Your task to perform on an android device: Open calendar and show me the third week of next month Image 0: 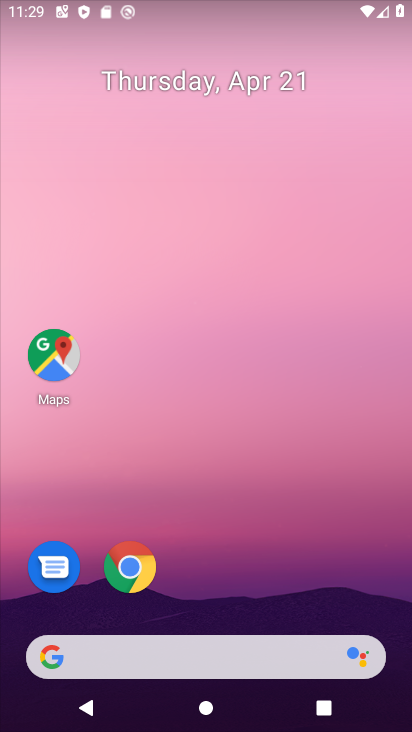
Step 0: drag from (364, 579) to (355, 200)
Your task to perform on an android device: Open calendar and show me the third week of next month Image 1: 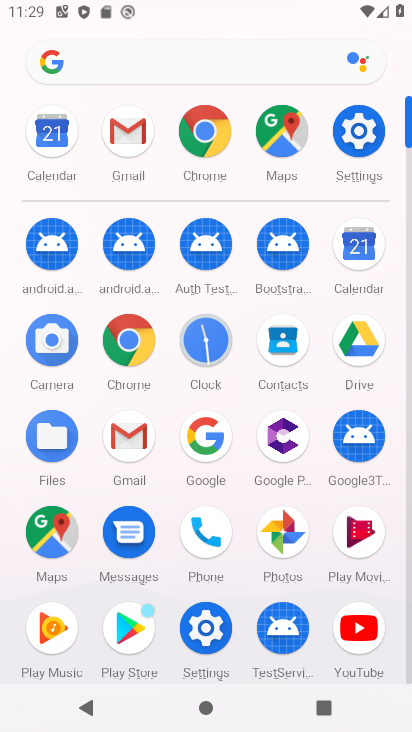
Step 1: click (349, 243)
Your task to perform on an android device: Open calendar and show me the third week of next month Image 2: 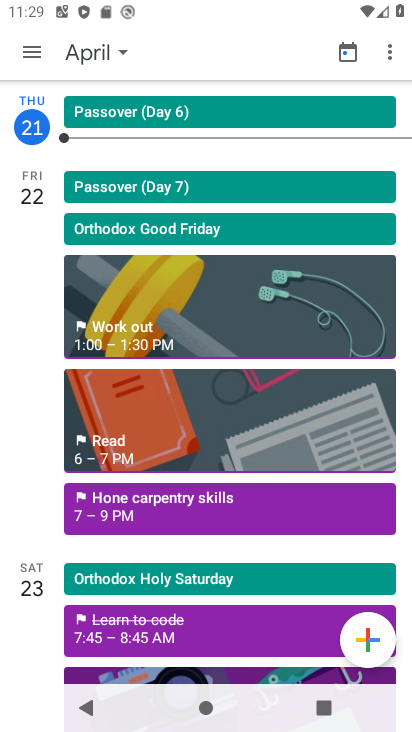
Step 2: click (97, 56)
Your task to perform on an android device: Open calendar and show me the third week of next month Image 3: 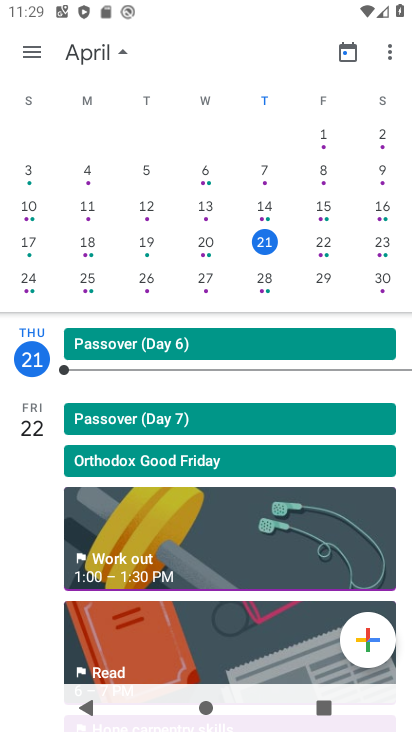
Step 3: drag from (364, 114) to (0, 115)
Your task to perform on an android device: Open calendar and show me the third week of next month Image 4: 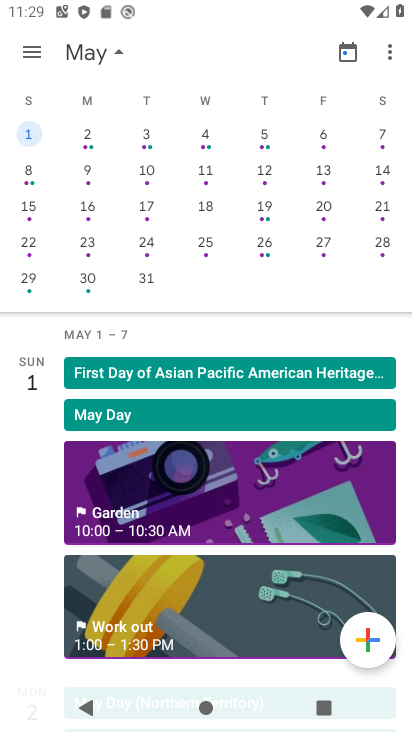
Step 4: click (29, 204)
Your task to perform on an android device: Open calendar and show me the third week of next month Image 5: 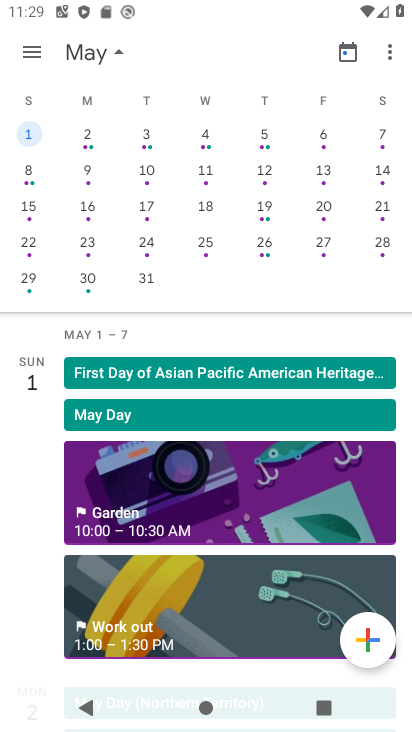
Step 5: click (33, 209)
Your task to perform on an android device: Open calendar and show me the third week of next month Image 6: 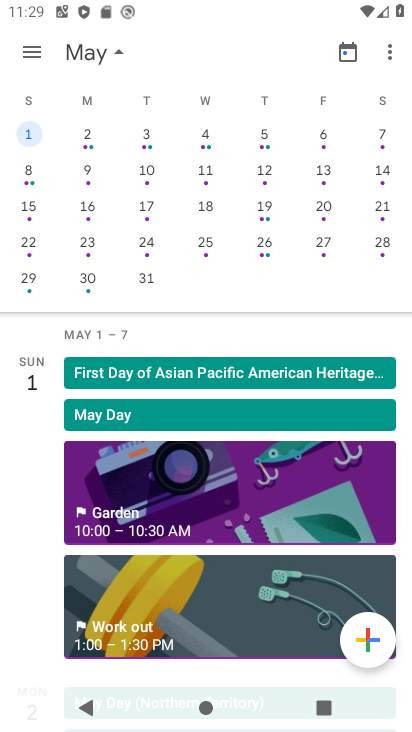
Step 6: click (32, 206)
Your task to perform on an android device: Open calendar and show me the third week of next month Image 7: 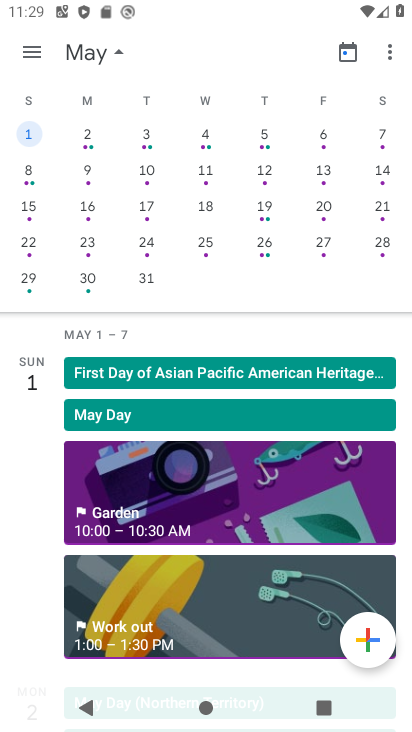
Step 7: click (32, 206)
Your task to perform on an android device: Open calendar and show me the third week of next month Image 8: 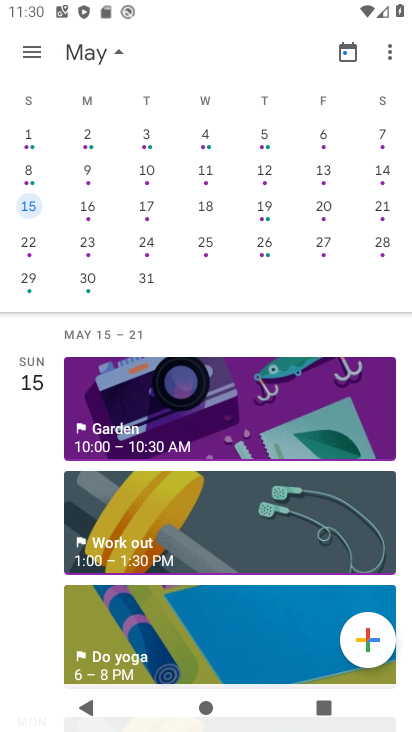
Step 8: task complete